Your task to perform on an android device: Open wifi settings Image 0: 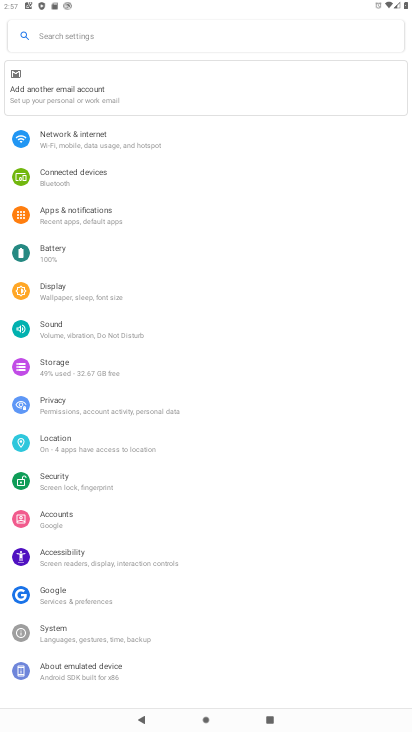
Step 0: press home button
Your task to perform on an android device: Open wifi settings Image 1: 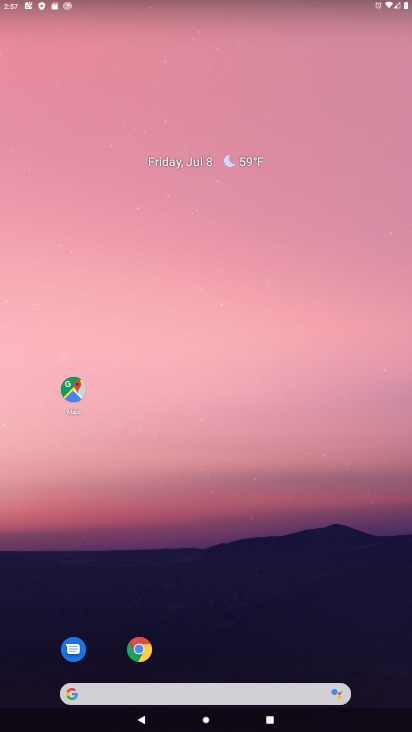
Step 1: drag from (302, 583) to (132, 105)
Your task to perform on an android device: Open wifi settings Image 2: 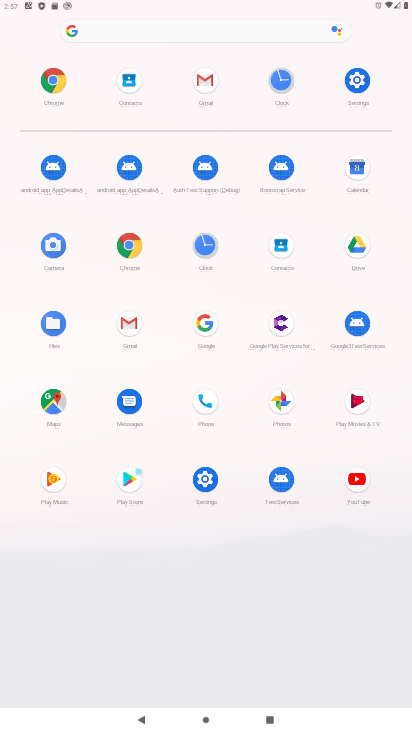
Step 2: click (361, 82)
Your task to perform on an android device: Open wifi settings Image 3: 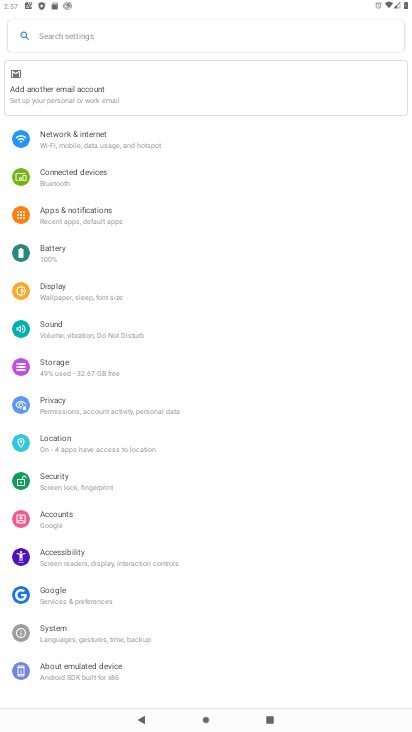
Step 3: click (120, 145)
Your task to perform on an android device: Open wifi settings Image 4: 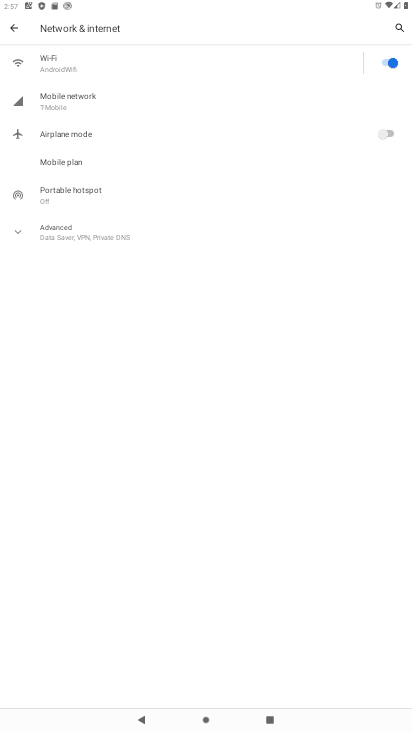
Step 4: click (162, 59)
Your task to perform on an android device: Open wifi settings Image 5: 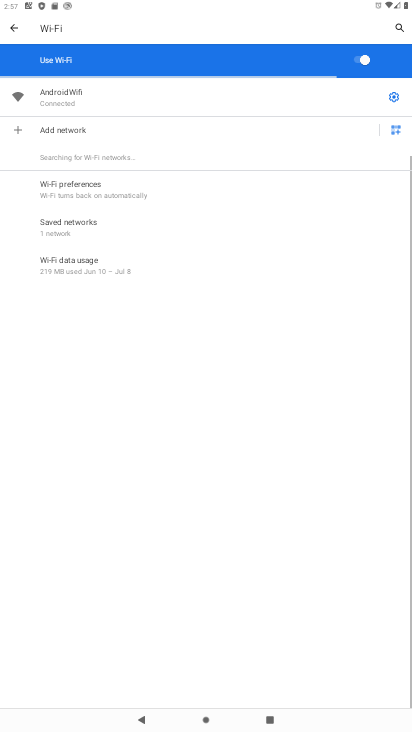
Step 5: click (394, 98)
Your task to perform on an android device: Open wifi settings Image 6: 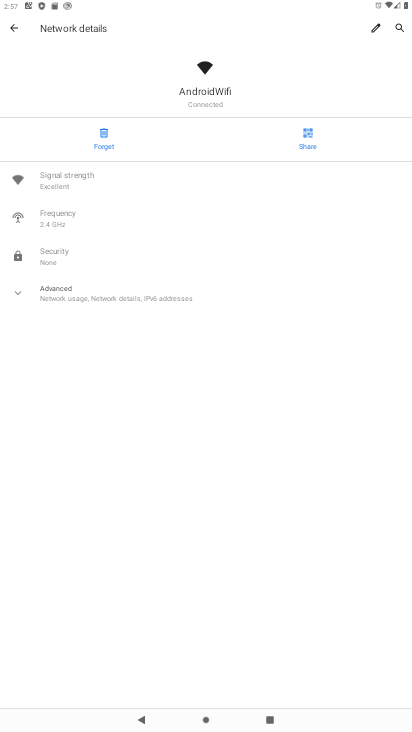
Step 6: task complete